Your task to perform on an android device: Open Youtube and go to the subscriptions tab Image 0: 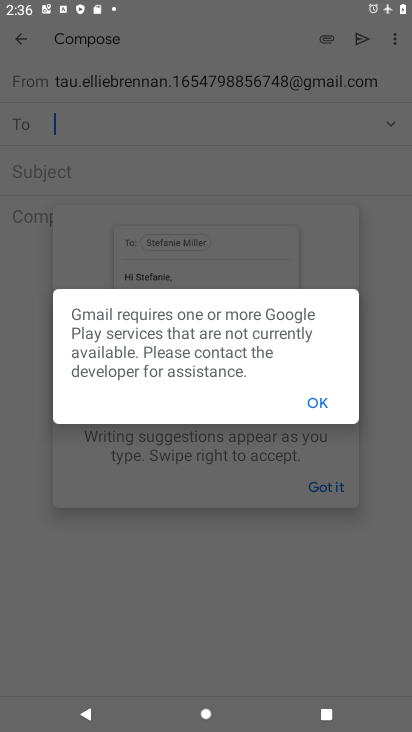
Step 0: press home button
Your task to perform on an android device: Open Youtube and go to the subscriptions tab Image 1: 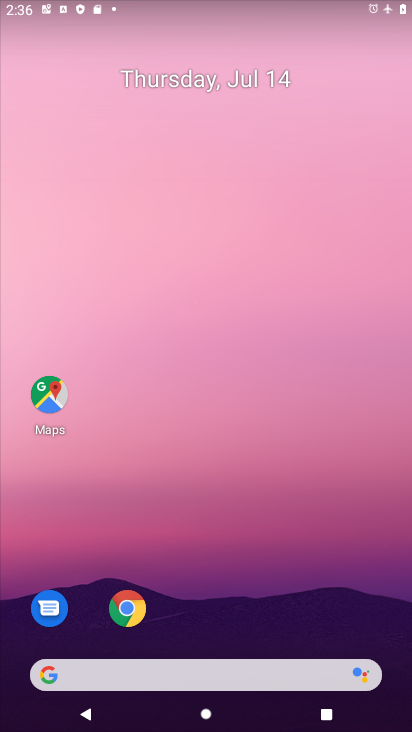
Step 1: drag from (317, 592) to (275, 180)
Your task to perform on an android device: Open Youtube and go to the subscriptions tab Image 2: 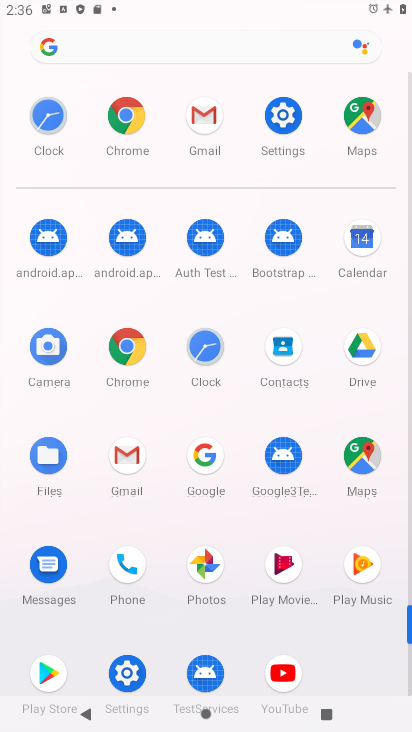
Step 2: click (282, 669)
Your task to perform on an android device: Open Youtube and go to the subscriptions tab Image 3: 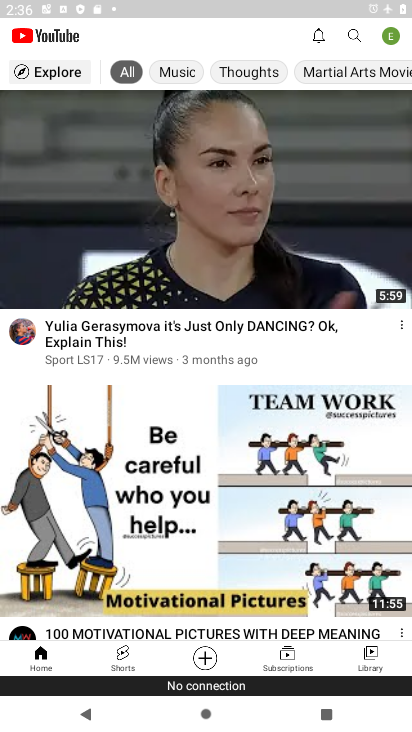
Step 3: click (282, 682)
Your task to perform on an android device: Open Youtube and go to the subscriptions tab Image 4: 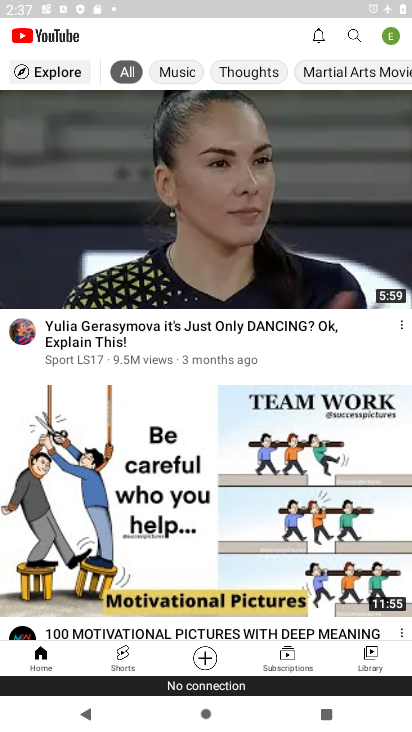
Step 4: click (288, 651)
Your task to perform on an android device: Open Youtube and go to the subscriptions tab Image 5: 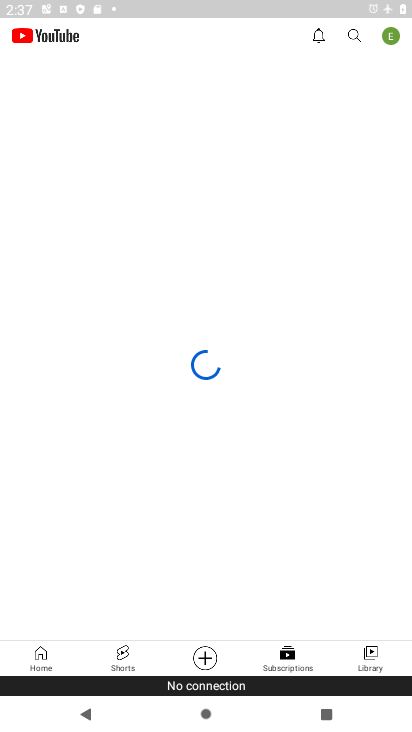
Step 5: task complete